Your task to perform on an android device: Show me the alarms in the clock app Image 0: 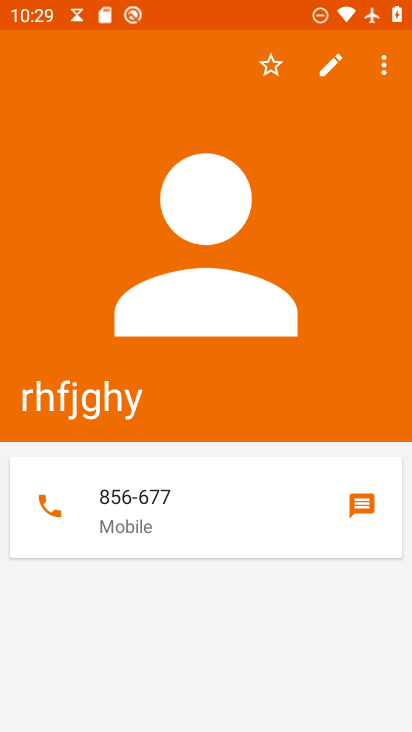
Step 0: press home button
Your task to perform on an android device: Show me the alarms in the clock app Image 1: 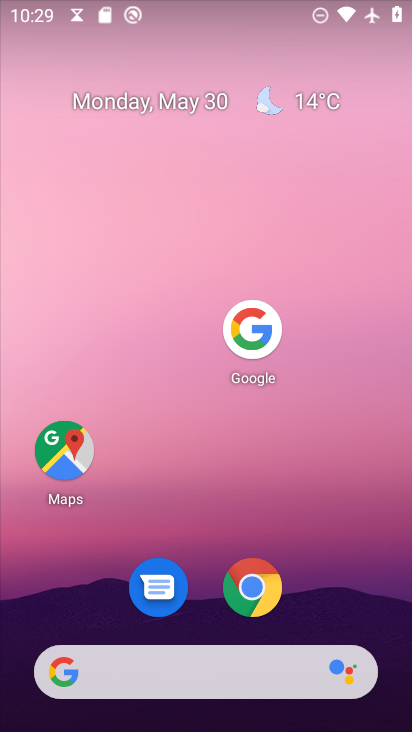
Step 1: drag from (170, 677) to (266, 152)
Your task to perform on an android device: Show me the alarms in the clock app Image 2: 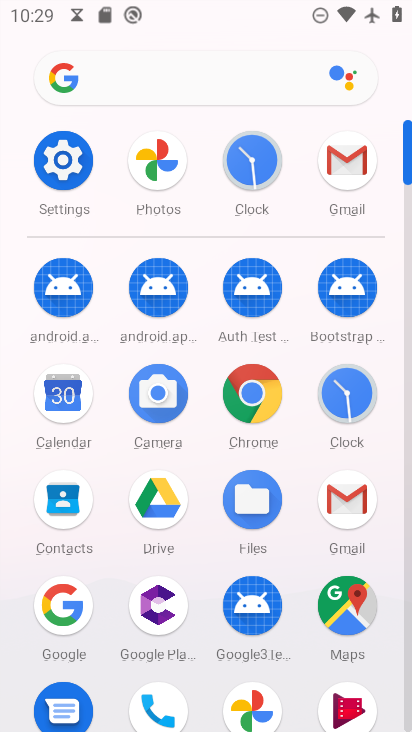
Step 2: click (347, 409)
Your task to perform on an android device: Show me the alarms in the clock app Image 3: 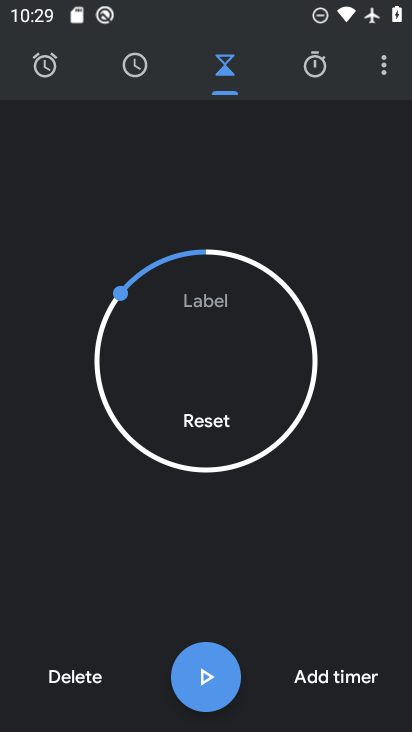
Step 3: click (45, 72)
Your task to perform on an android device: Show me the alarms in the clock app Image 4: 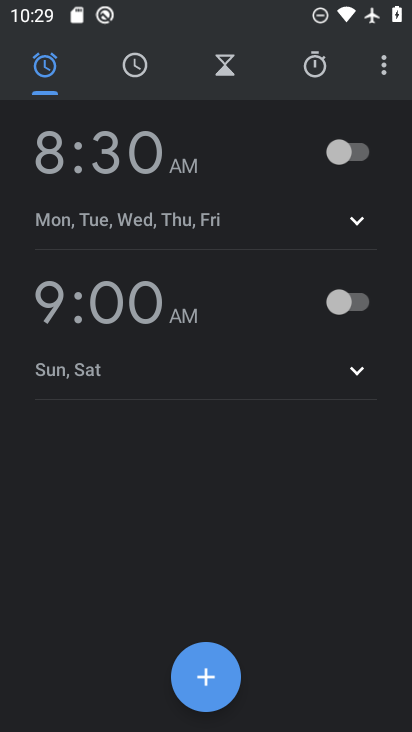
Step 4: task complete